Your task to perform on an android device: Add dell xps to the cart on amazon.com, then select checkout. Image 0: 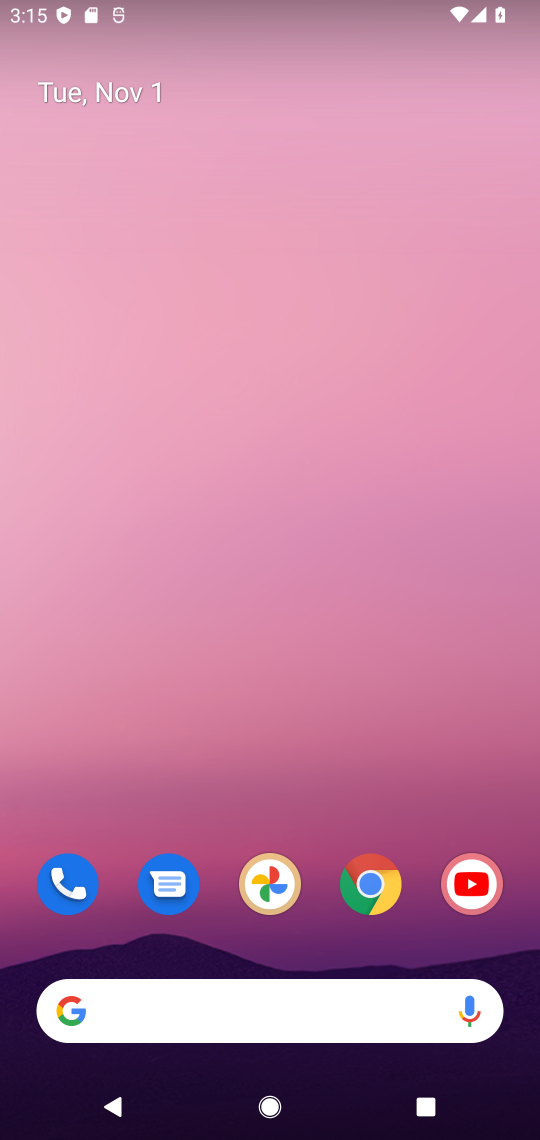
Step 0: click (364, 887)
Your task to perform on an android device: Add dell xps to the cart on amazon.com, then select checkout. Image 1: 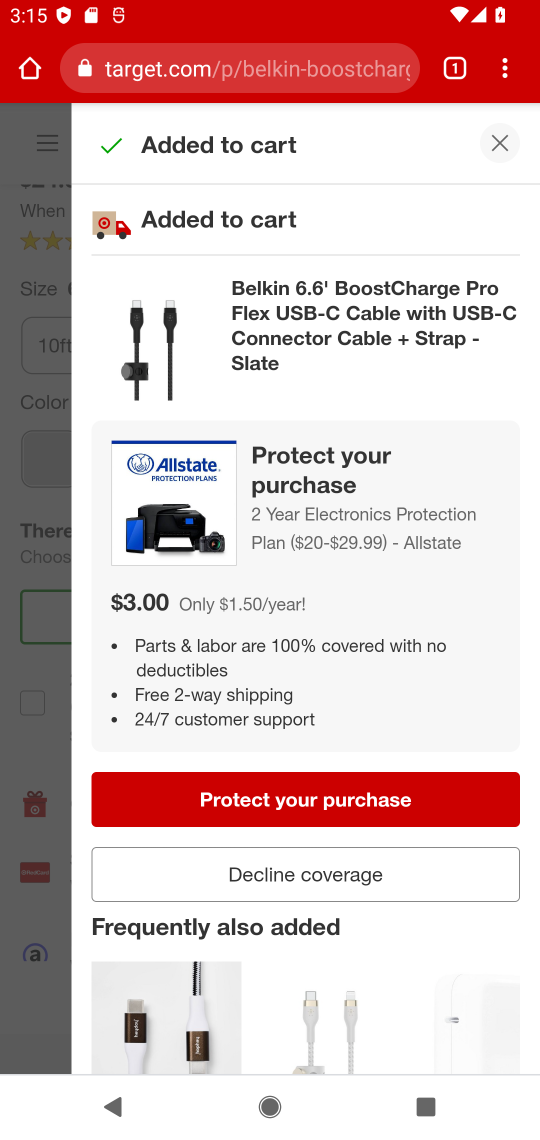
Step 1: click (501, 137)
Your task to perform on an android device: Add dell xps to the cart on amazon.com, then select checkout. Image 2: 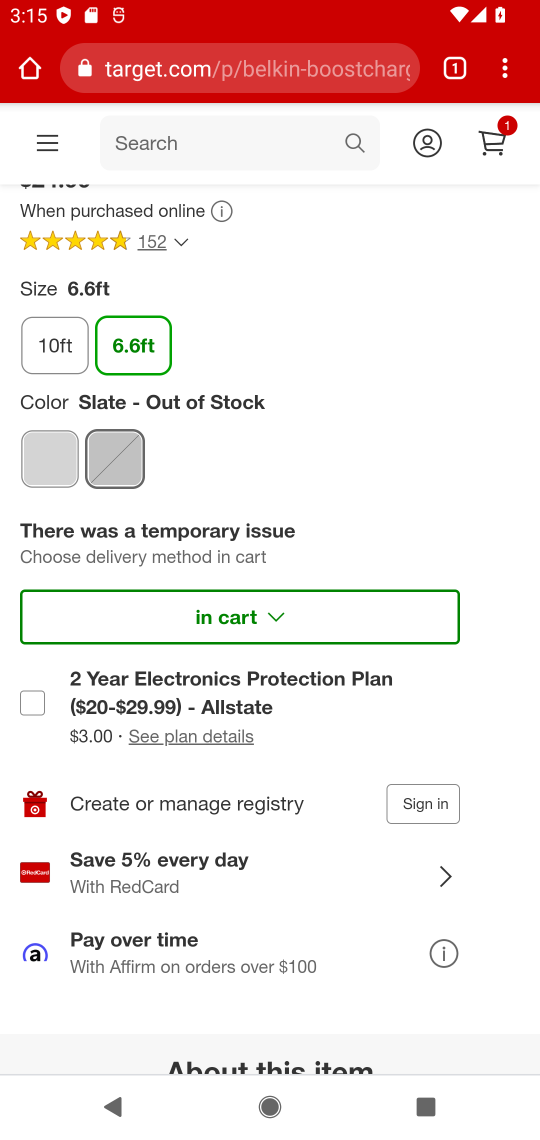
Step 2: click (356, 66)
Your task to perform on an android device: Add dell xps to the cart on amazon.com, then select checkout. Image 3: 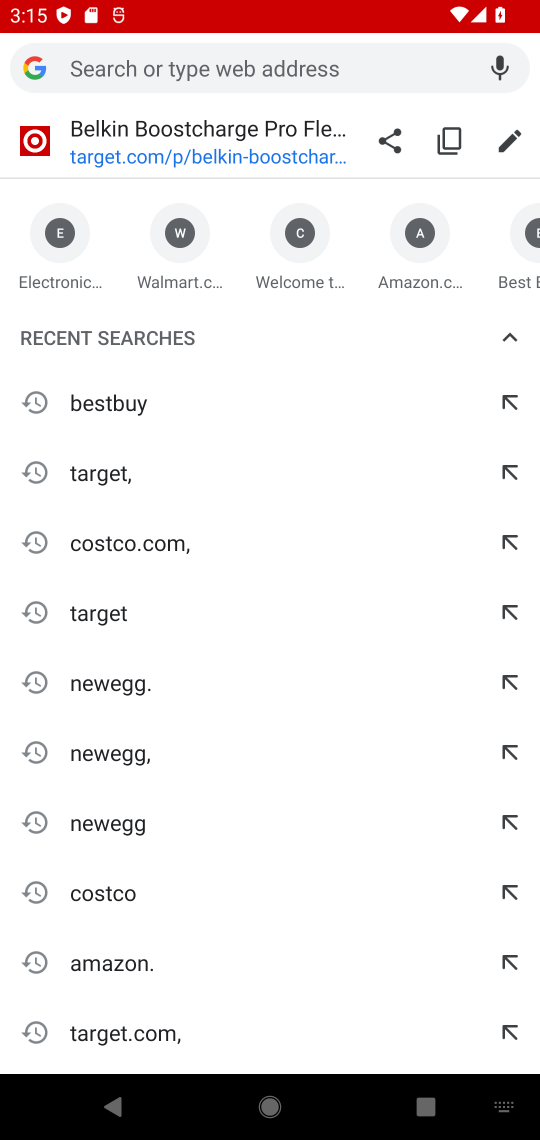
Step 3: press enter
Your task to perform on an android device: Add dell xps to the cart on amazon.com, then select checkout. Image 4: 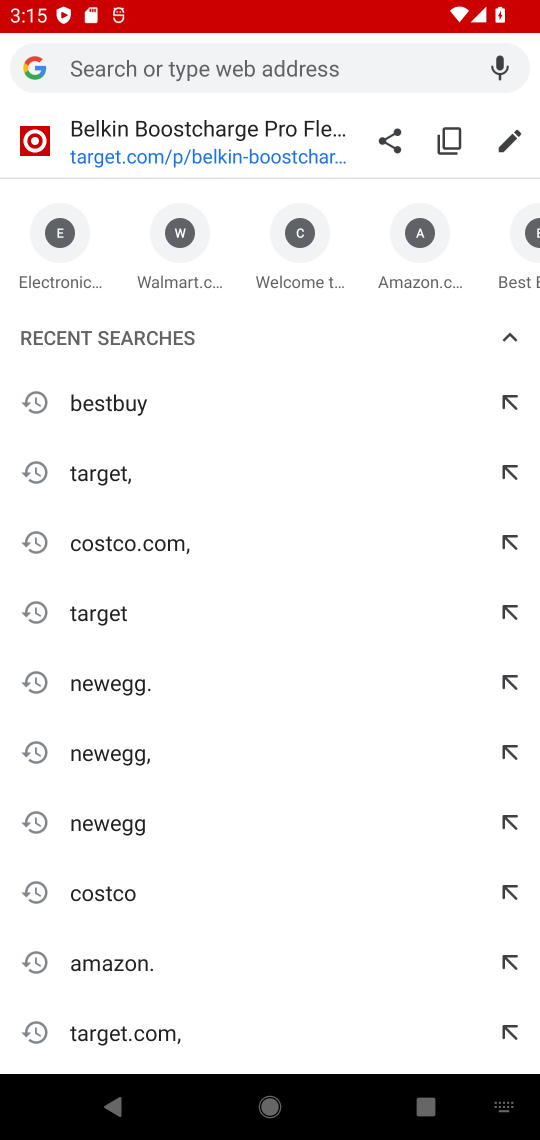
Step 4: type "amazon.com"
Your task to perform on an android device: Add dell xps to the cart on amazon.com, then select checkout. Image 5: 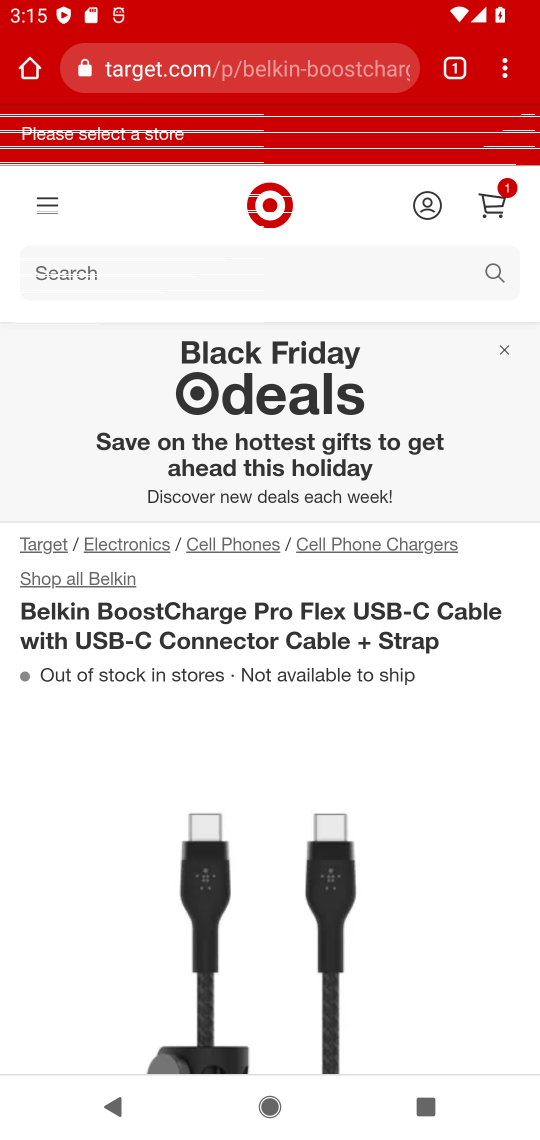
Step 5: click (26, 70)
Your task to perform on an android device: Add dell xps to the cart on amazon.com, then select checkout. Image 6: 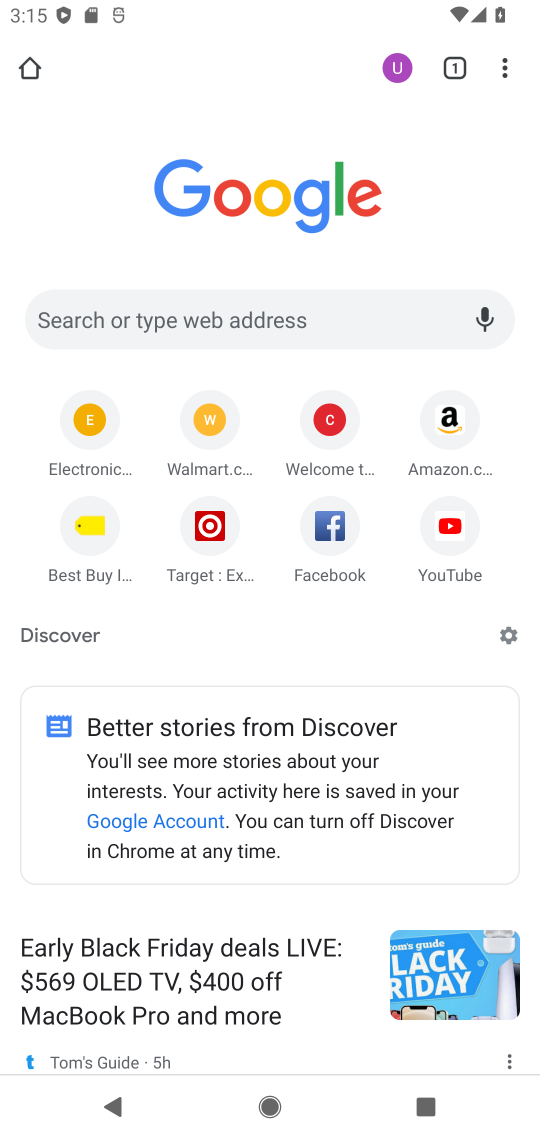
Step 6: click (246, 322)
Your task to perform on an android device: Add dell xps to the cart on amazon.com, then select checkout. Image 7: 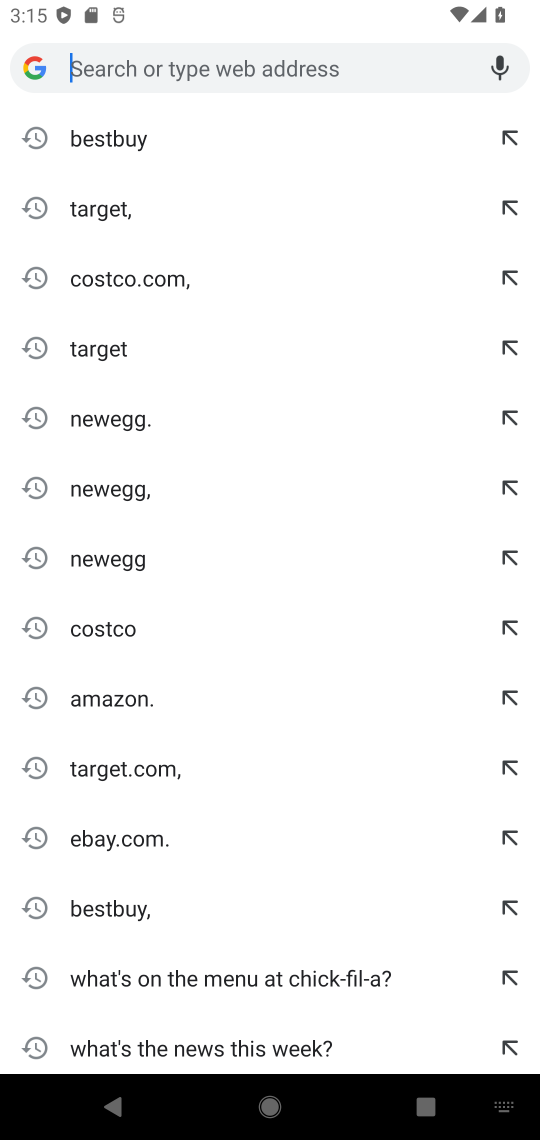
Step 7: type "amazon.com"
Your task to perform on an android device: Add dell xps to the cart on amazon.com, then select checkout. Image 8: 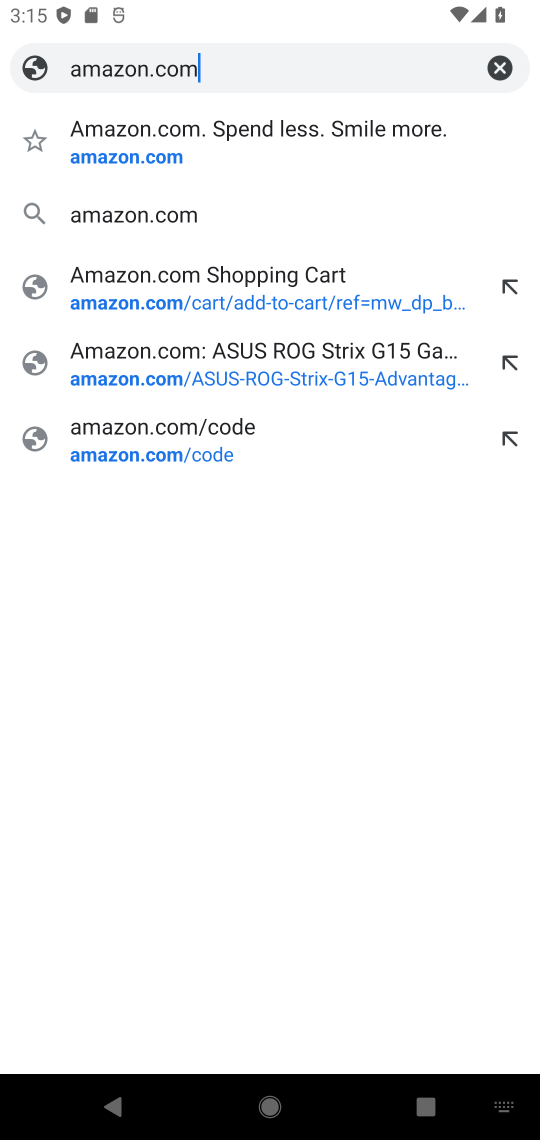
Step 8: click (423, 69)
Your task to perform on an android device: Add dell xps to the cart on amazon.com, then select checkout. Image 9: 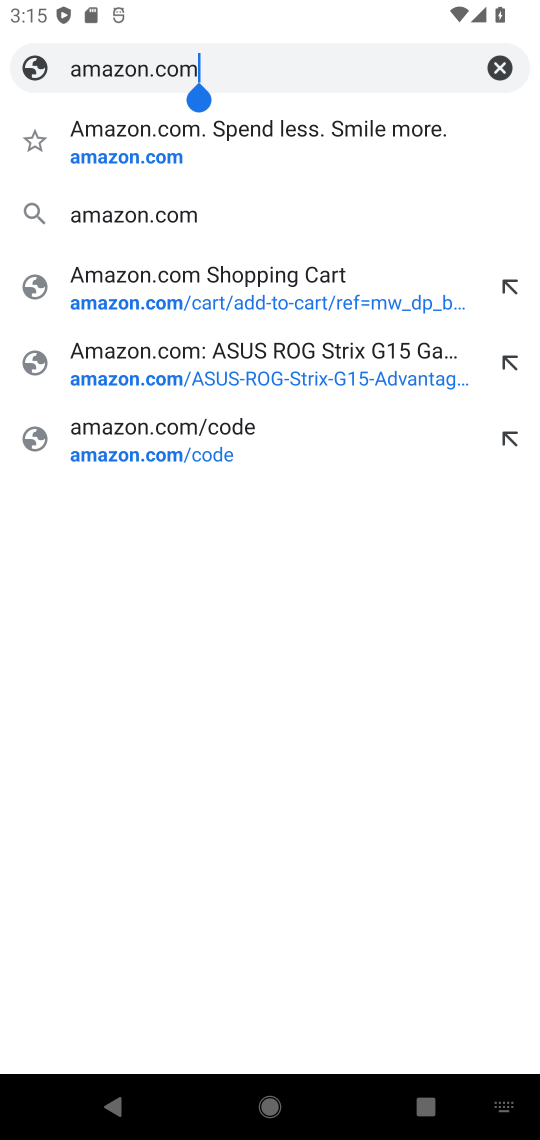
Step 9: click (169, 200)
Your task to perform on an android device: Add dell xps to the cart on amazon.com, then select checkout. Image 10: 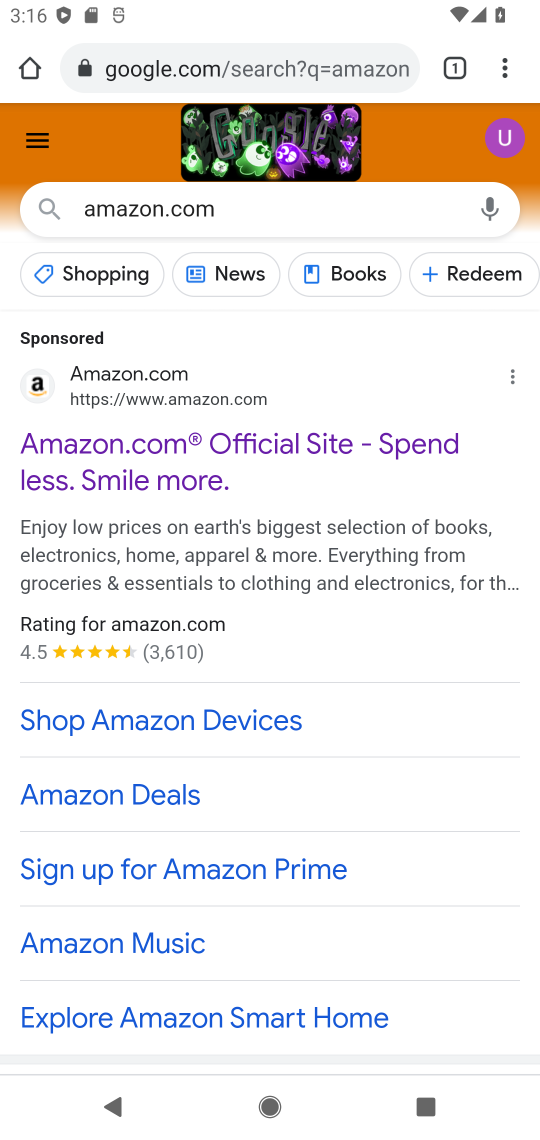
Step 10: click (146, 380)
Your task to perform on an android device: Add dell xps to the cart on amazon.com, then select checkout. Image 11: 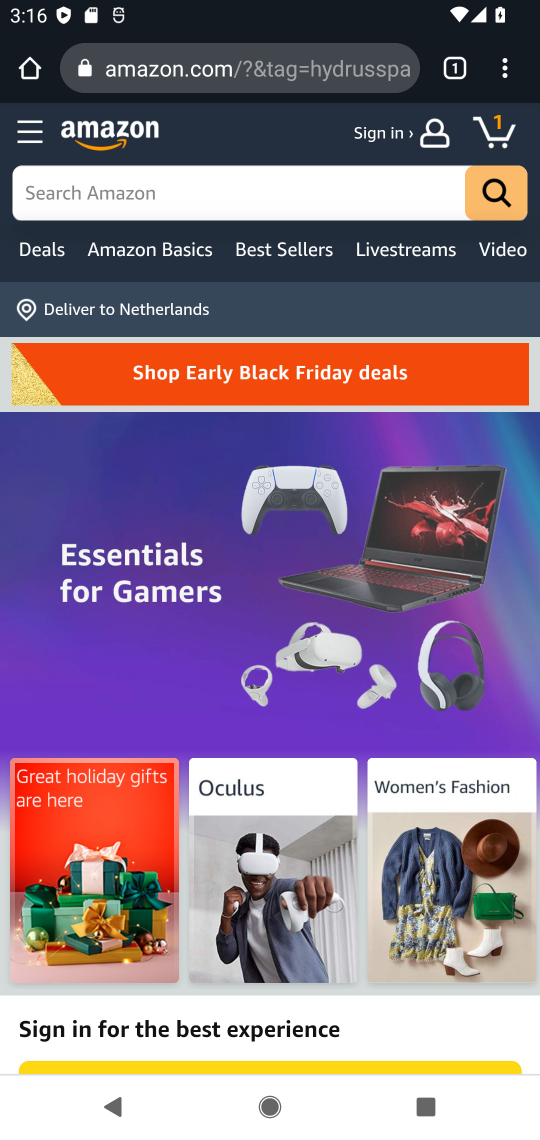
Step 11: click (204, 177)
Your task to perform on an android device: Add dell xps to the cart on amazon.com, then select checkout. Image 12: 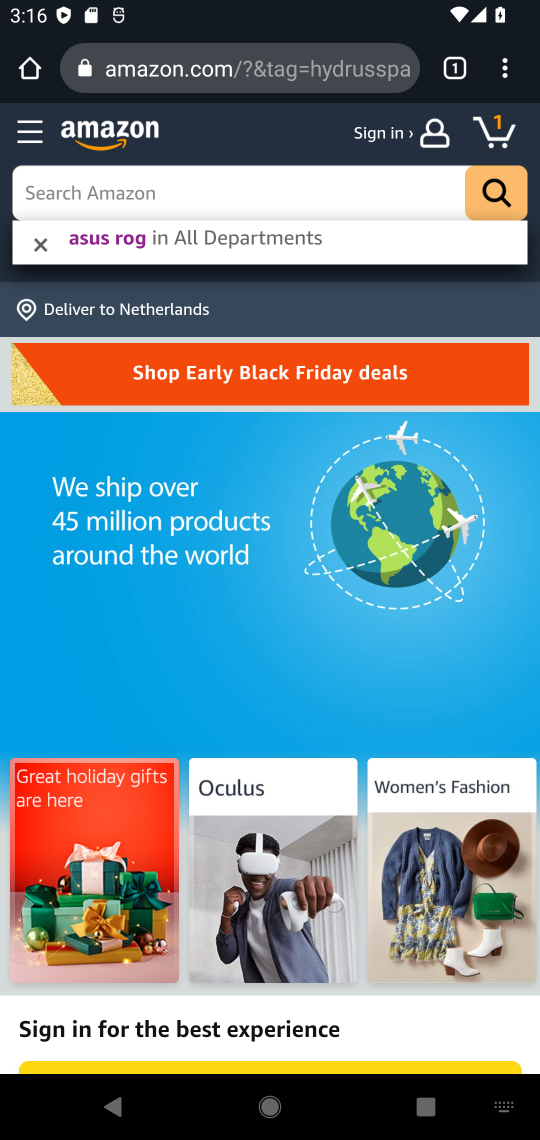
Step 12: type "dell xps"
Your task to perform on an android device: Add dell xps to the cart on amazon.com, then select checkout. Image 13: 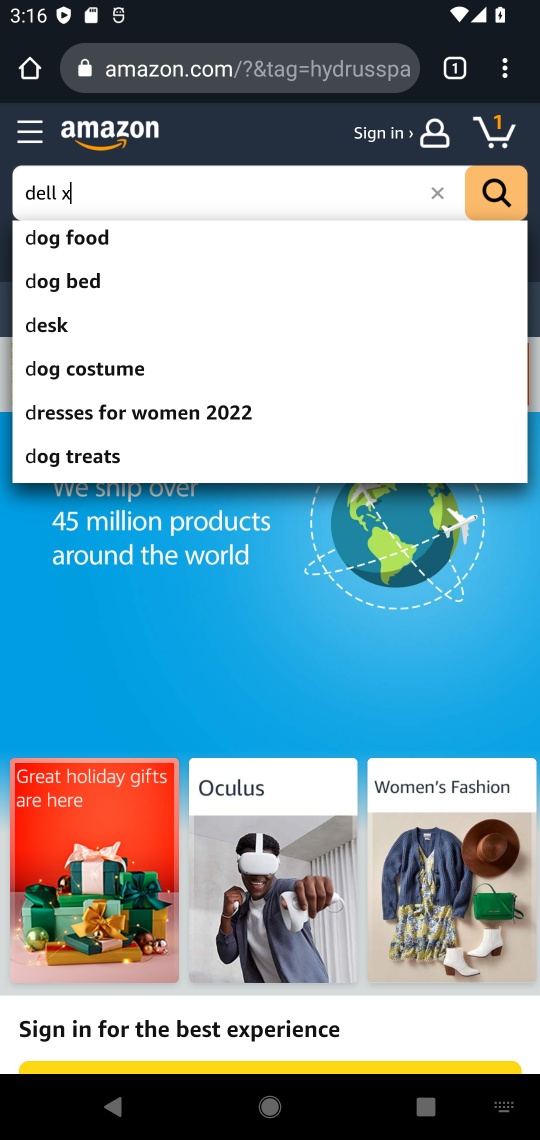
Step 13: press enter
Your task to perform on an android device: Add dell xps to the cart on amazon.com, then select checkout. Image 14: 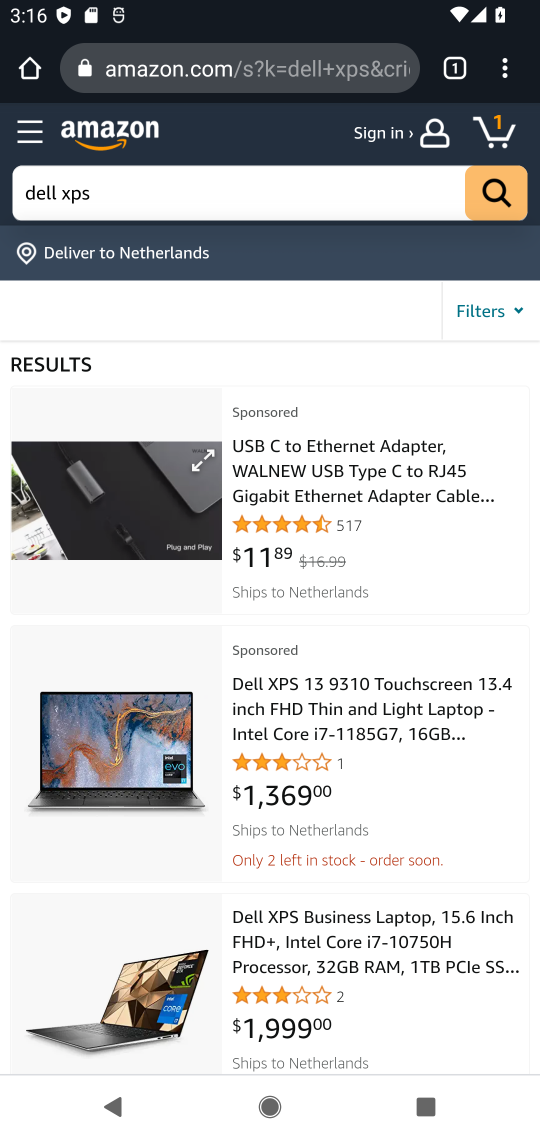
Step 14: click (133, 489)
Your task to perform on an android device: Add dell xps to the cart on amazon.com, then select checkout. Image 15: 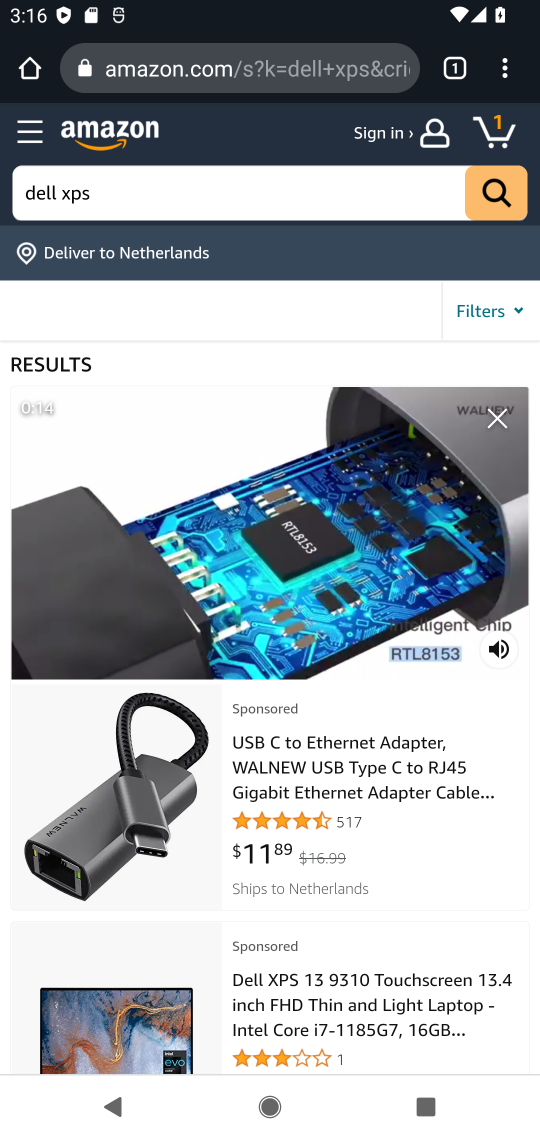
Step 15: click (501, 418)
Your task to perform on an android device: Add dell xps to the cart on amazon.com, then select checkout. Image 16: 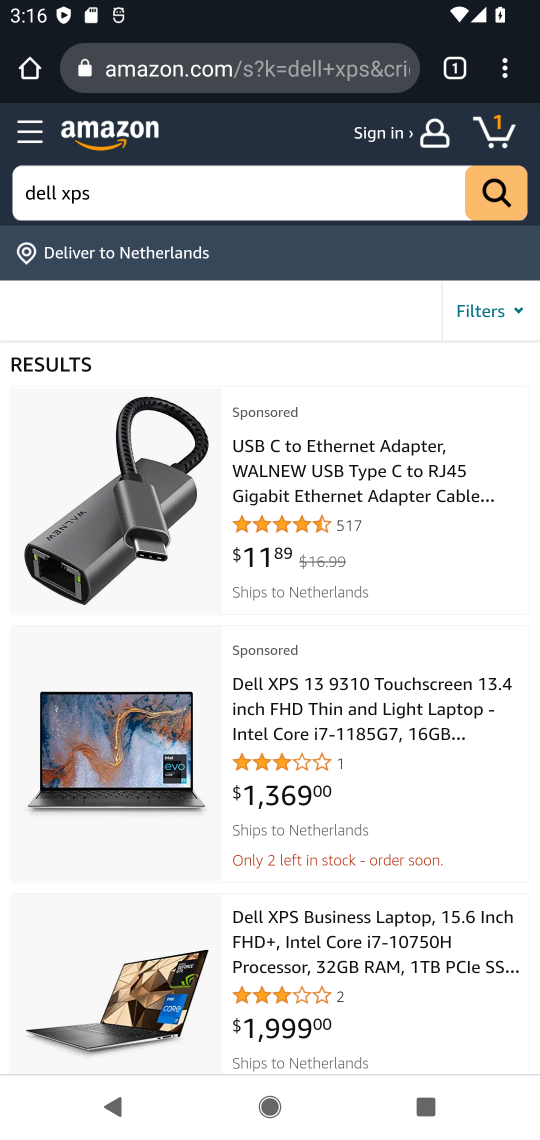
Step 16: click (106, 511)
Your task to perform on an android device: Add dell xps to the cart on amazon.com, then select checkout. Image 17: 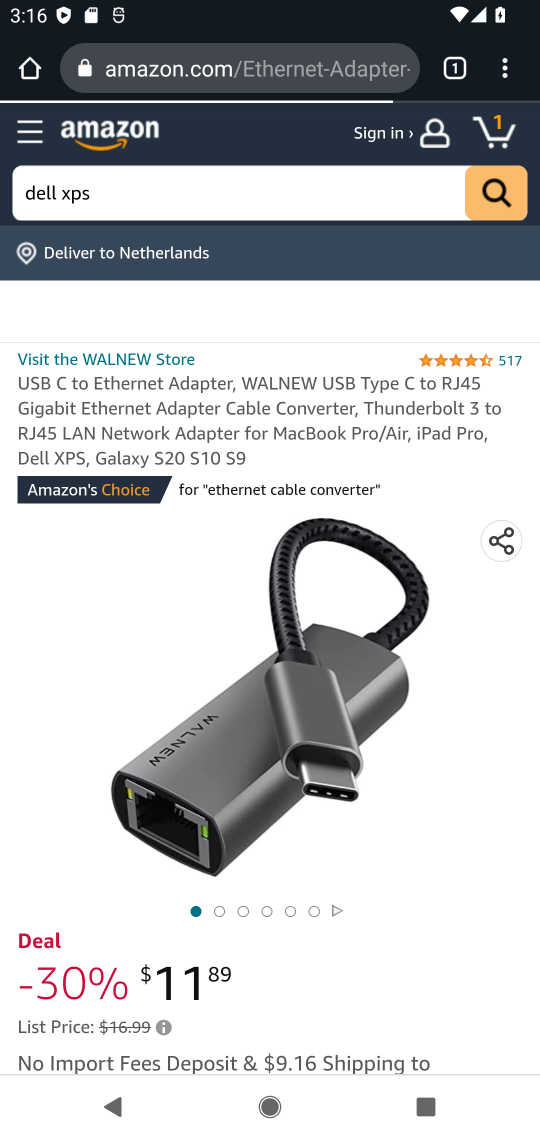
Step 17: drag from (394, 868) to (375, 266)
Your task to perform on an android device: Add dell xps to the cart on amazon.com, then select checkout. Image 18: 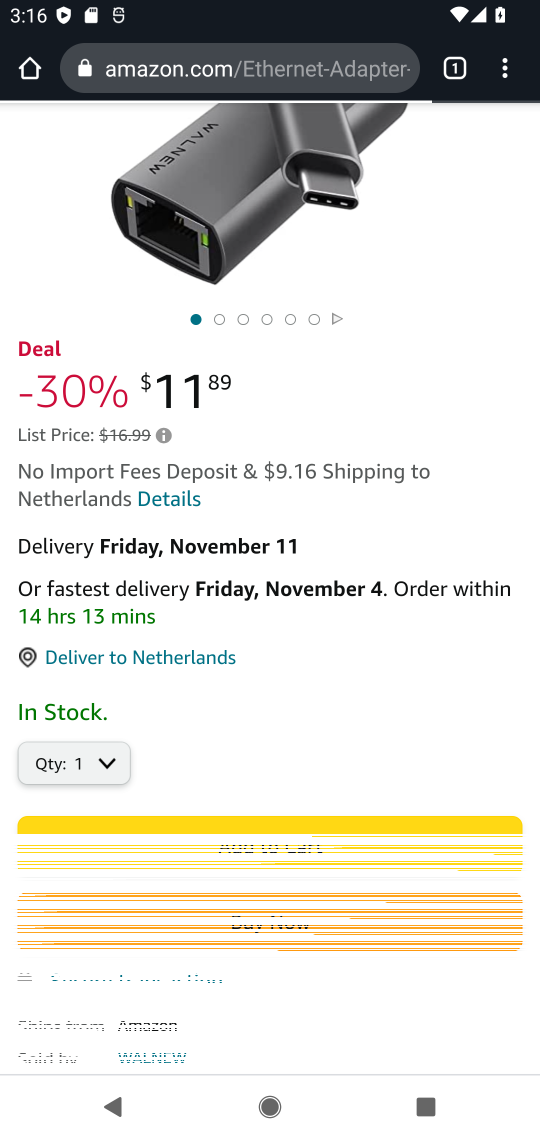
Step 18: click (345, 849)
Your task to perform on an android device: Add dell xps to the cart on amazon.com, then select checkout. Image 19: 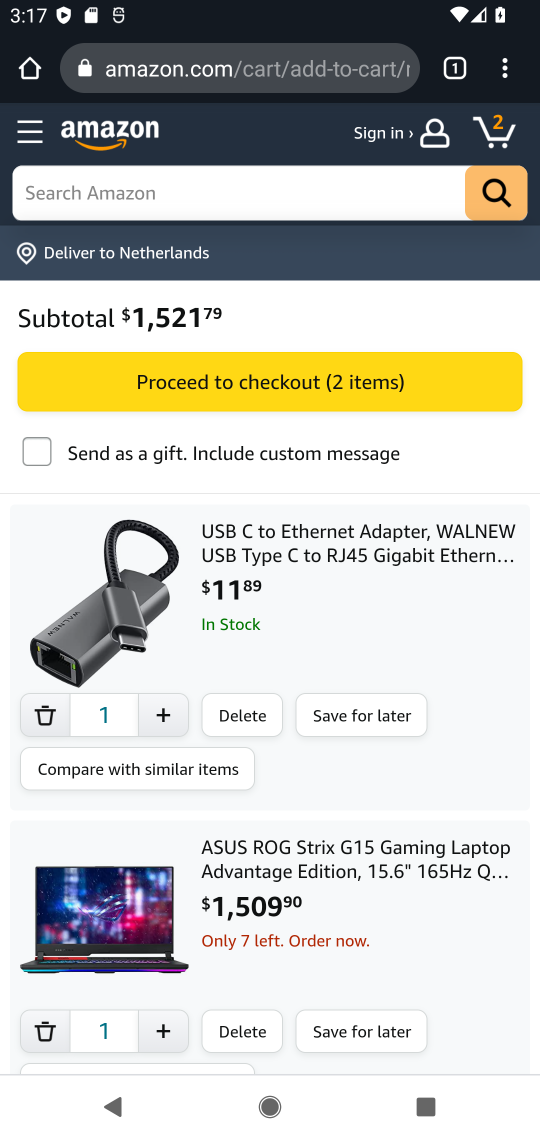
Step 19: click (269, 382)
Your task to perform on an android device: Add dell xps to the cart on amazon.com, then select checkout. Image 20: 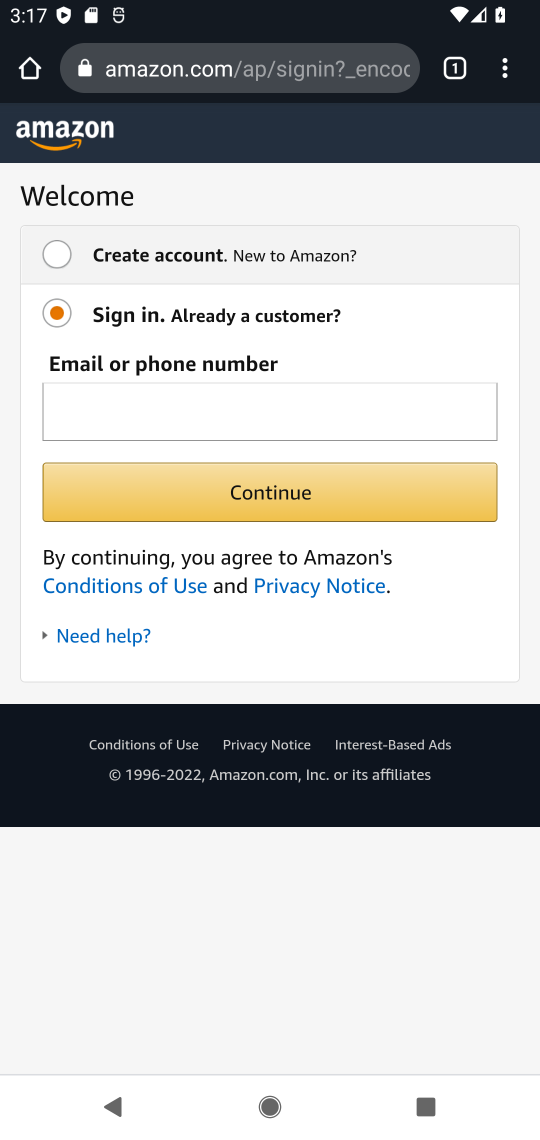
Step 20: task complete